Your task to perform on an android device: toggle airplane mode Image 0: 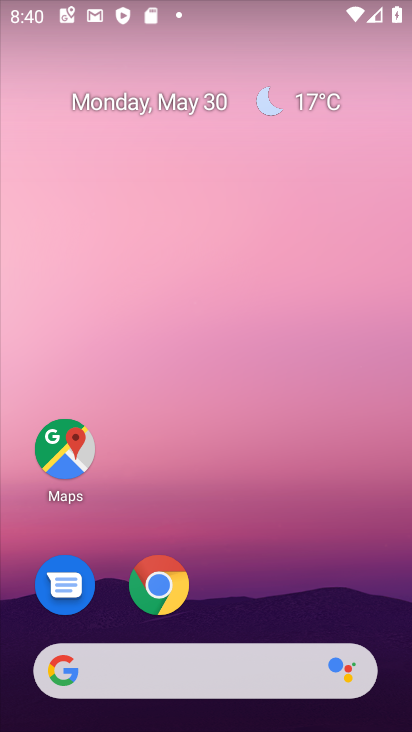
Step 0: drag from (232, 559) to (287, 142)
Your task to perform on an android device: toggle airplane mode Image 1: 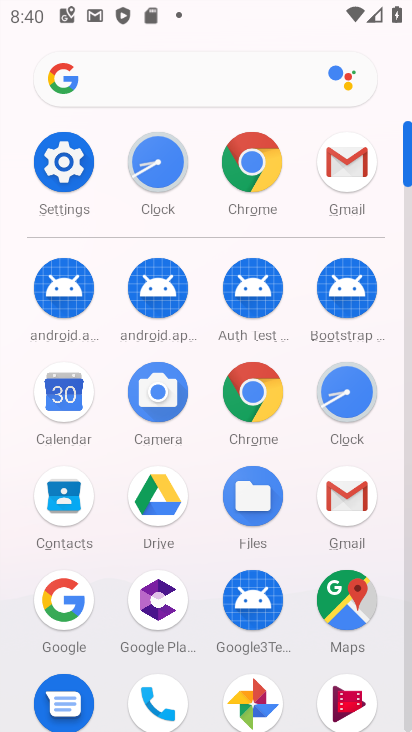
Step 1: click (64, 165)
Your task to perform on an android device: toggle airplane mode Image 2: 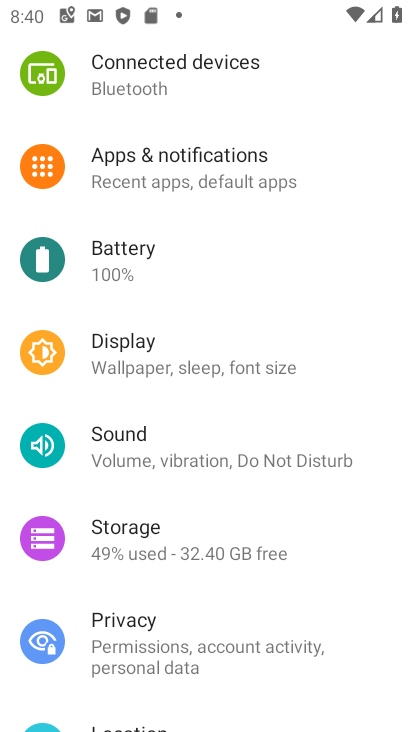
Step 2: drag from (210, 165) to (223, 634)
Your task to perform on an android device: toggle airplane mode Image 3: 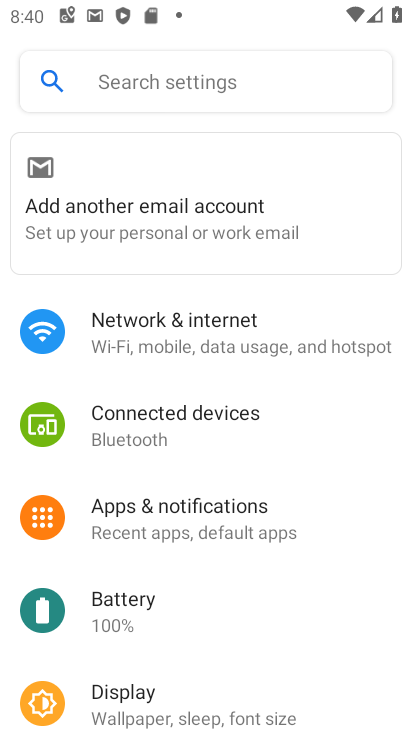
Step 3: click (176, 358)
Your task to perform on an android device: toggle airplane mode Image 4: 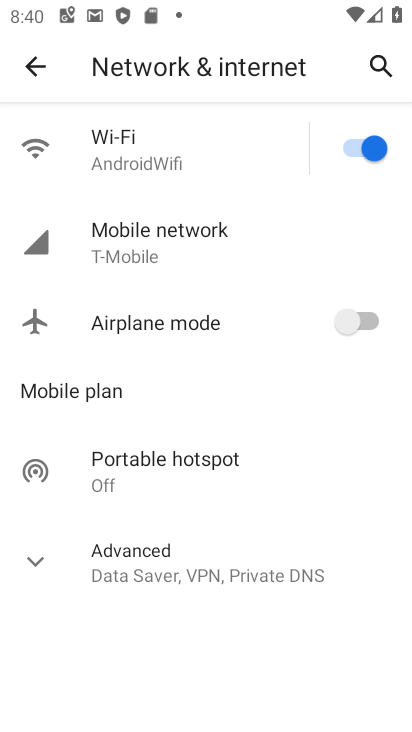
Step 4: click (164, 316)
Your task to perform on an android device: toggle airplane mode Image 5: 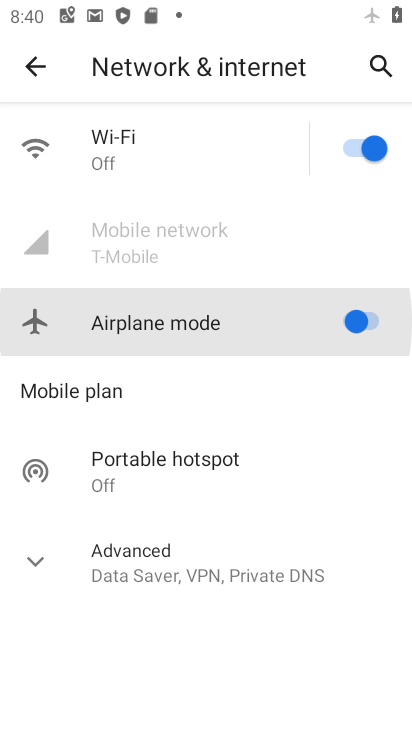
Step 5: task complete